Your task to perform on an android device: turn on javascript in the chrome app Image 0: 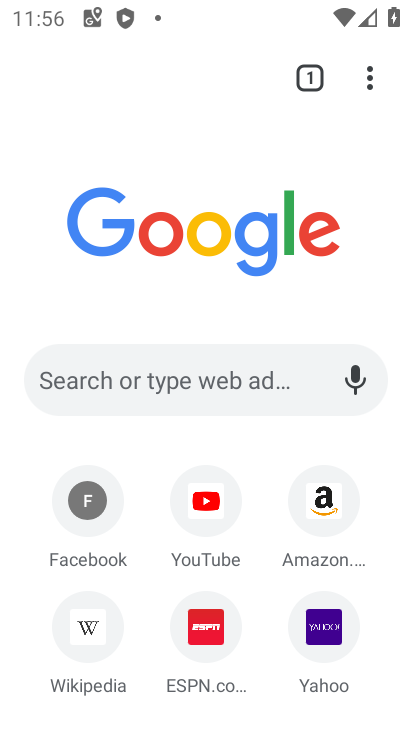
Step 0: click (383, 75)
Your task to perform on an android device: turn on javascript in the chrome app Image 1: 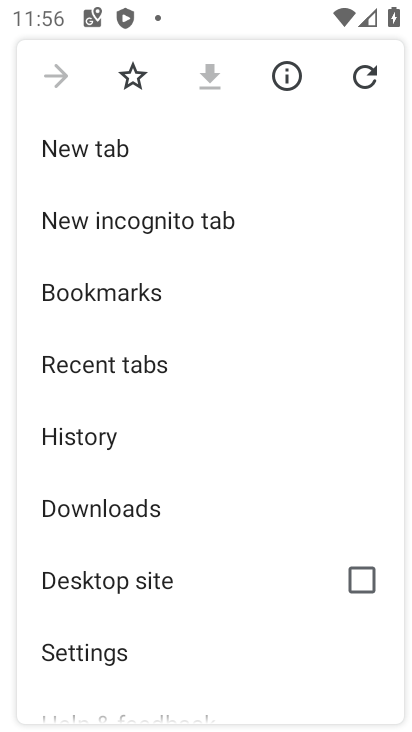
Step 1: click (91, 673)
Your task to perform on an android device: turn on javascript in the chrome app Image 2: 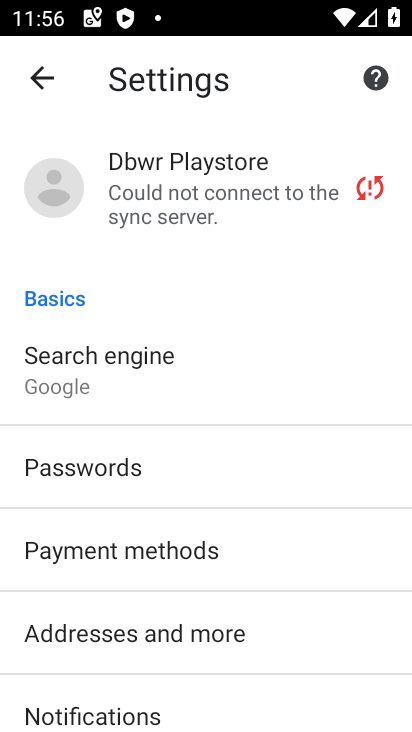
Step 2: drag from (193, 666) to (206, 296)
Your task to perform on an android device: turn on javascript in the chrome app Image 3: 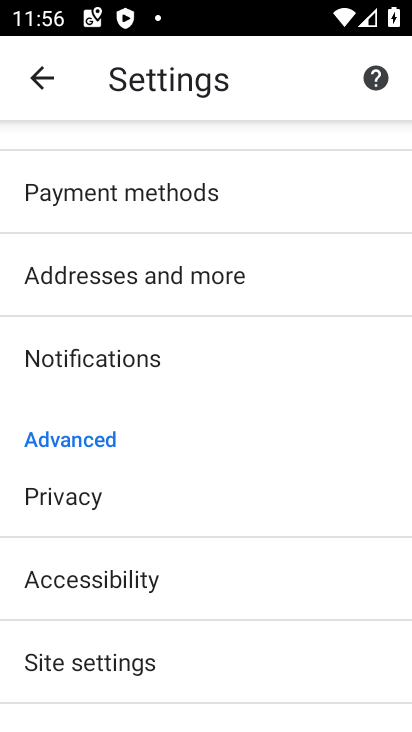
Step 3: drag from (206, 609) to (268, 373)
Your task to perform on an android device: turn on javascript in the chrome app Image 4: 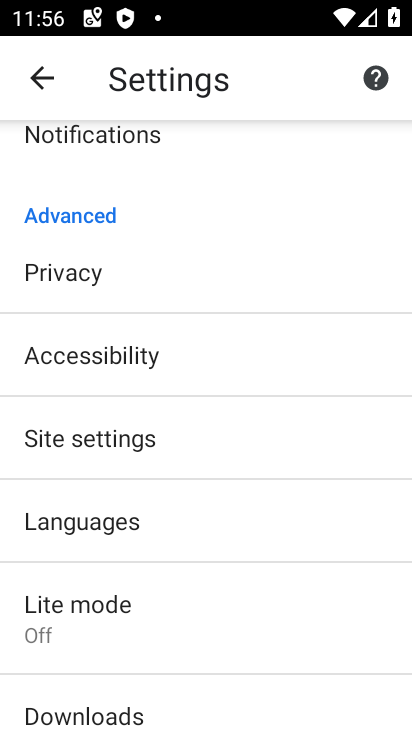
Step 4: click (258, 458)
Your task to perform on an android device: turn on javascript in the chrome app Image 5: 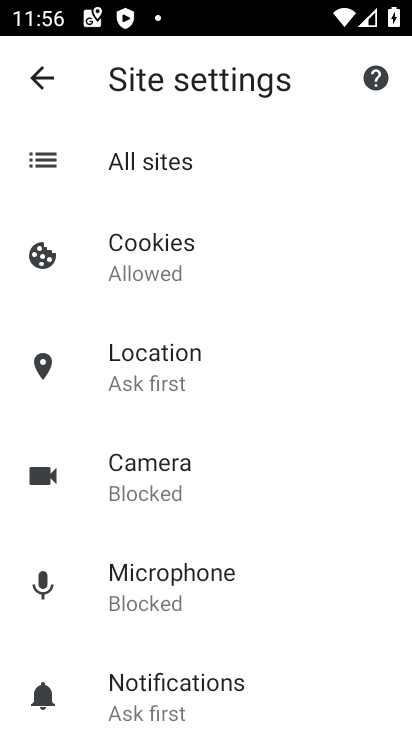
Step 5: drag from (170, 648) to (183, 242)
Your task to perform on an android device: turn on javascript in the chrome app Image 6: 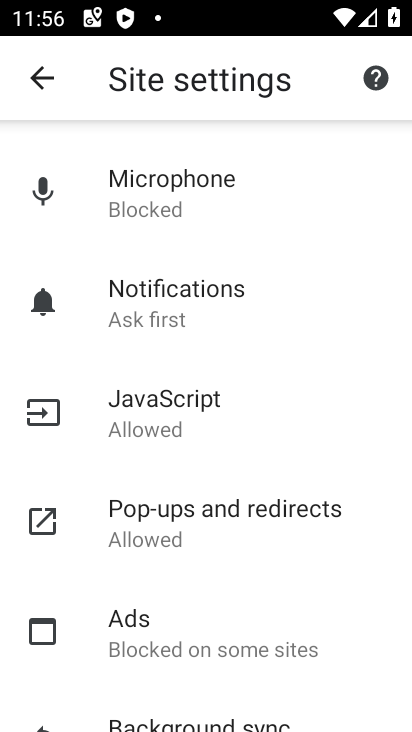
Step 6: click (271, 426)
Your task to perform on an android device: turn on javascript in the chrome app Image 7: 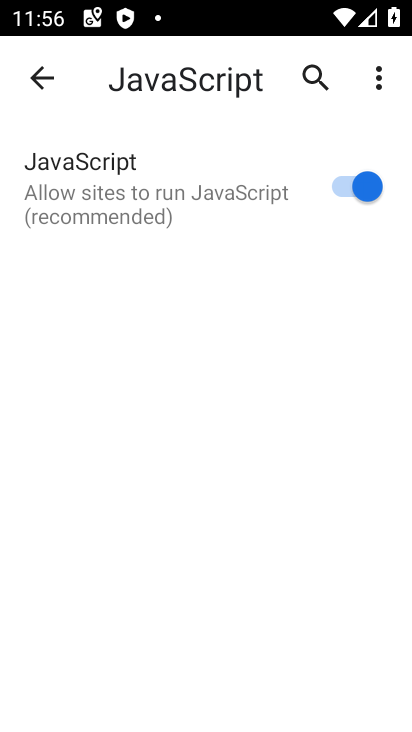
Step 7: task complete